Your task to perform on an android device: toggle notifications settings in the gmail app Image 0: 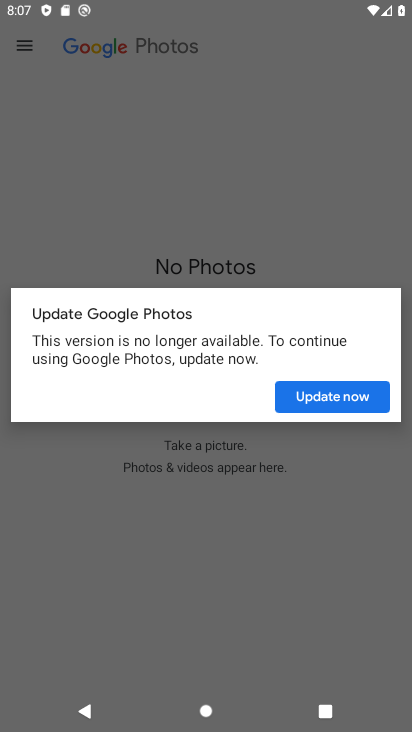
Step 0: press home button
Your task to perform on an android device: toggle notifications settings in the gmail app Image 1: 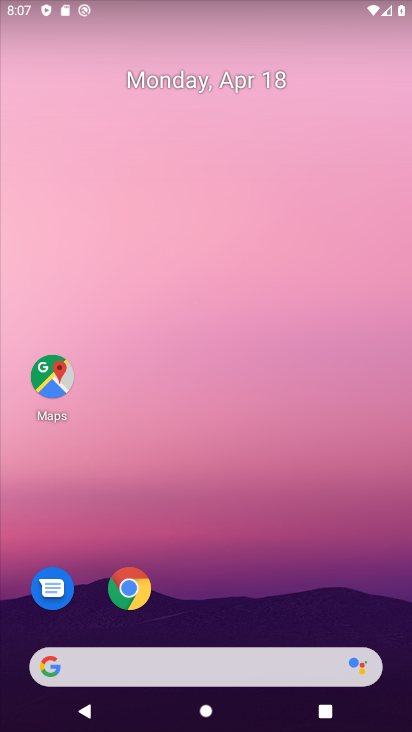
Step 1: drag from (225, 576) to (307, 163)
Your task to perform on an android device: toggle notifications settings in the gmail app Image 2: 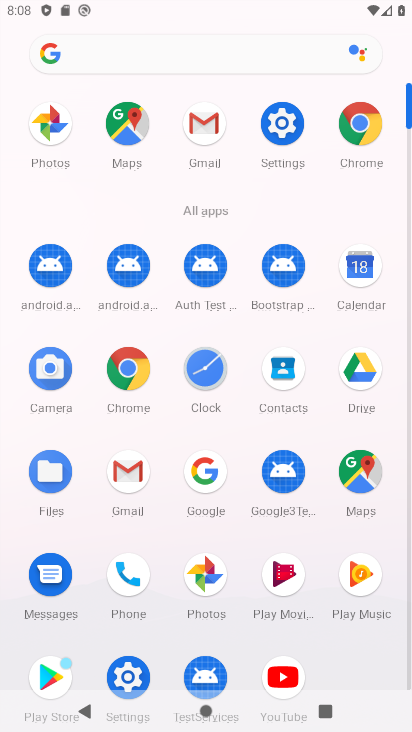
Step 2: click (209, 123)
Your task to perform on an android device: toggle notifications settings in the gmail app Image 3: 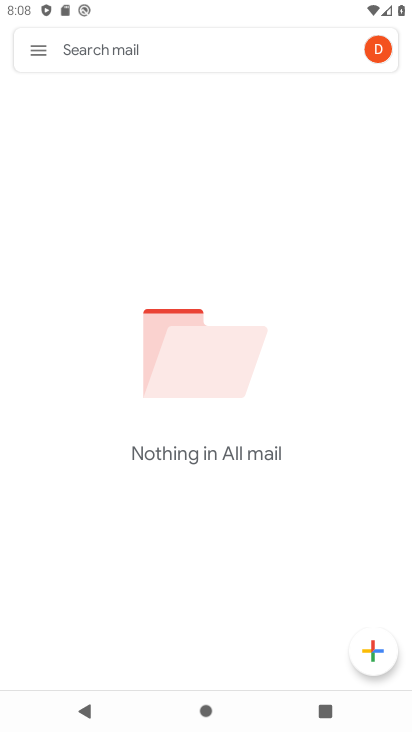
Step 3: click (40, 44)
Your task to perform on an android device: toggle notifications settings in the gmail app Image 4: 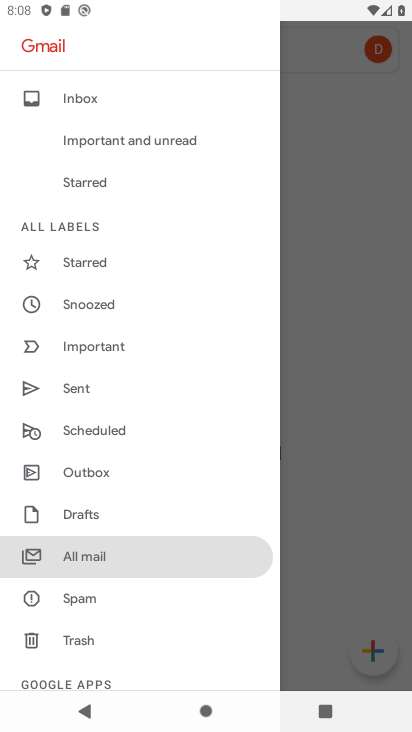
Step 4: drag from (164, 618) to (205, 139)
Your task to perform on an android device: toggle notifications settings in the gmail app Image 5: 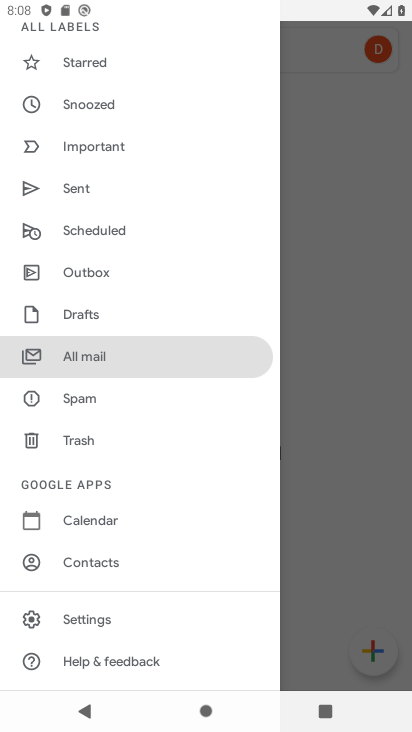
Step 5: click (83, 621)
Your task to perform on an android device: toggle notifications settings in the gmail app Image 6: 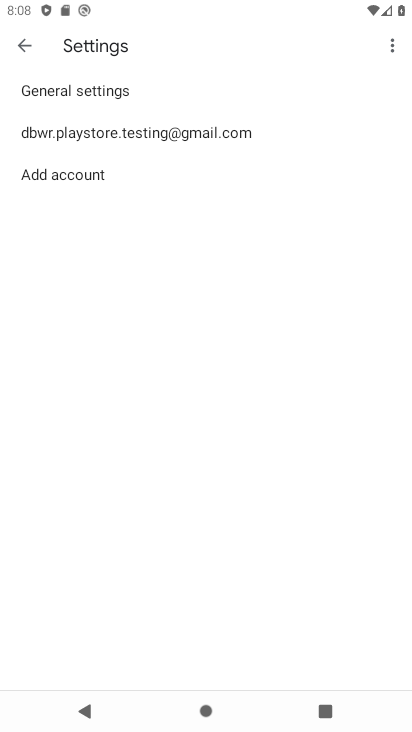
Step 6: click (89, 87)
Your task to perform on an android device: toggle notifications settings in the gmail app Image 7: 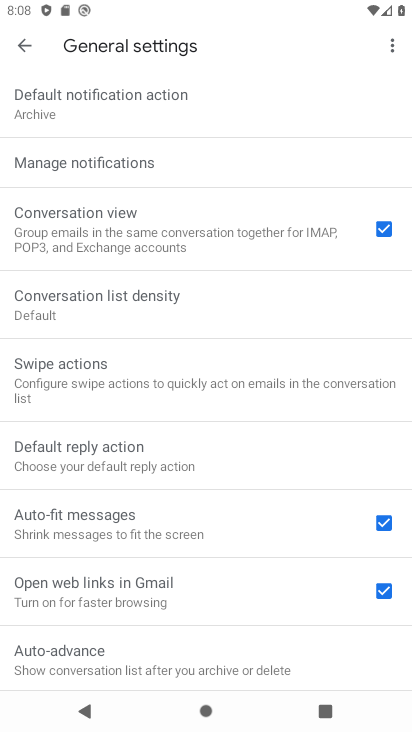
Step 7: click (90, 162)
Your task to perform on an android device: toggle notifications settings in the gmail app Image 8: 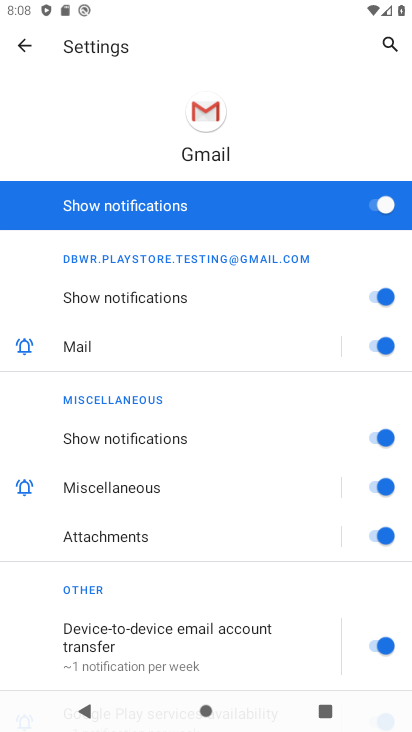
Step 8: click (382, 208)
Your task to perform on an android device: toggle notifications settings in the gmail app Image 9: 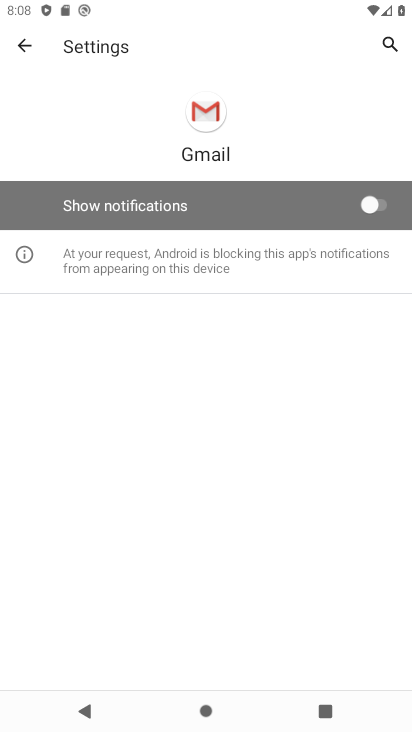
Step 9: task complete